Your task to perform on an android device: open app "Spotify: Music and Podcasts" Image 0: 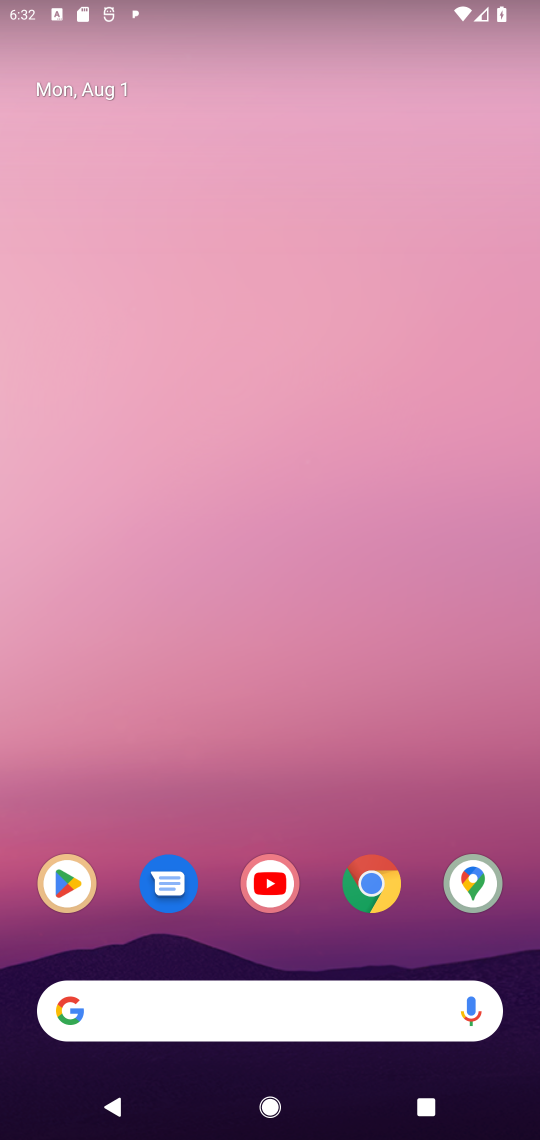
Step 0: click (61, 881)
Your task to perform on an android device: open app "Spotify: Music and Podcasts" Image 1: 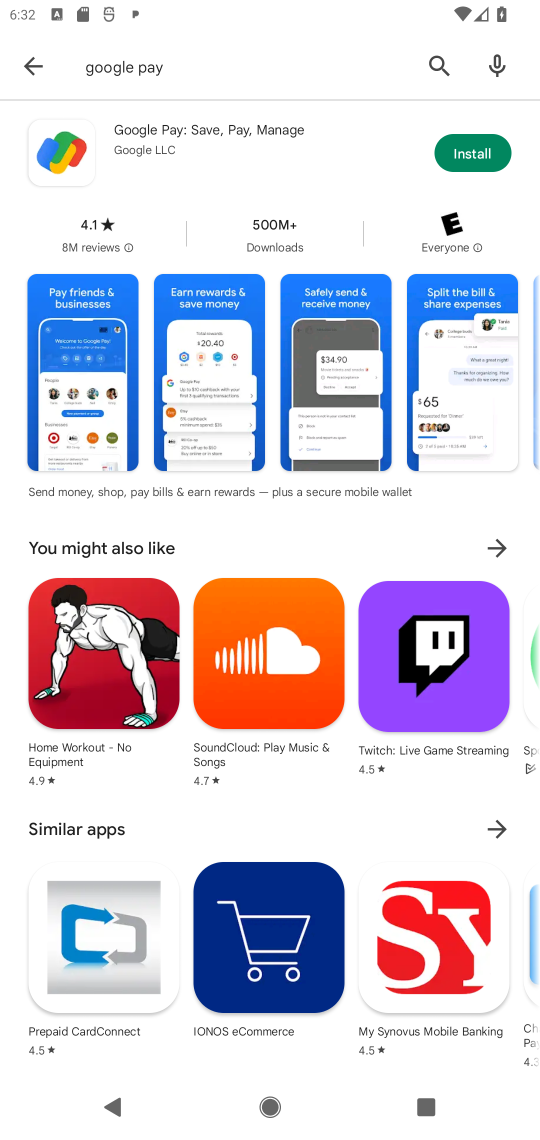
Step 1: click (31, 71)
Your task to perform on an android device: open app "Spotify: Music and Podcasts" Image 2: 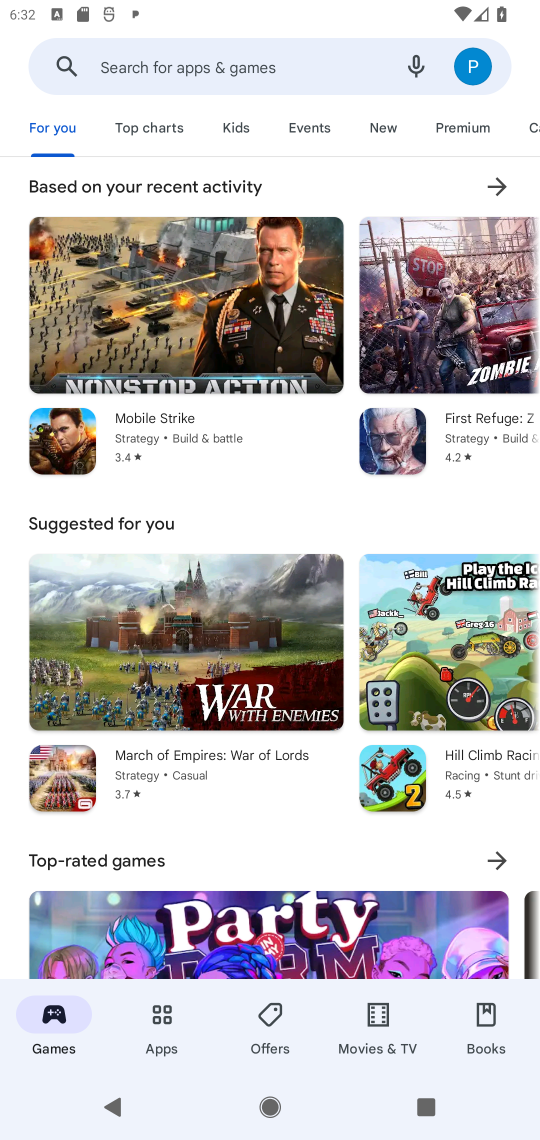
Step 2: click (111, 70)
Your task to perform on an android device: open app "Spotify: Music and Podcasts" Image 3: 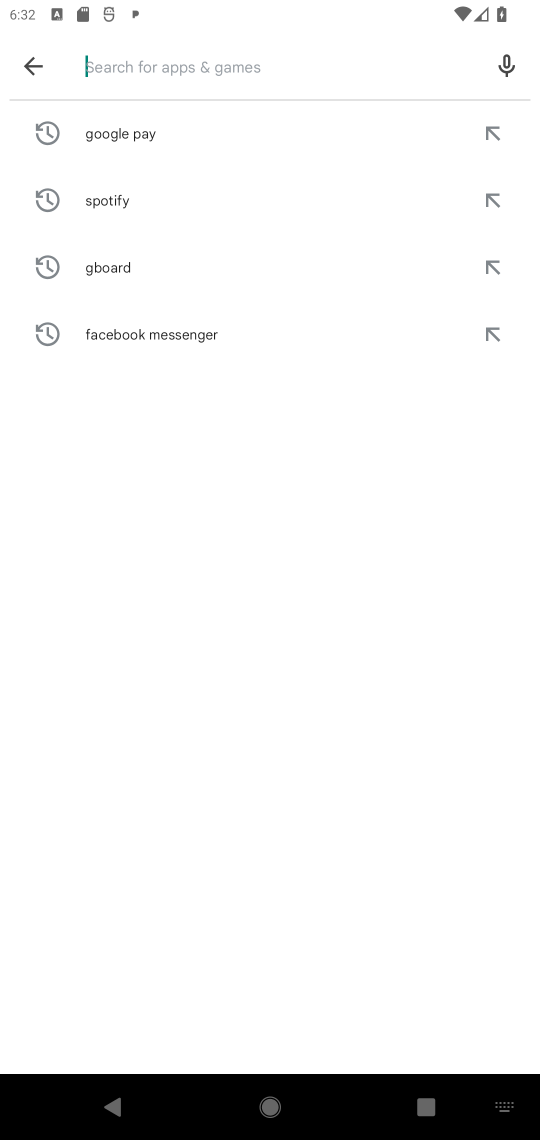
Step 3: click (102, 204)
Your task to perform on an android device: open app "Spotify: Music and Podcasts" Image 4: 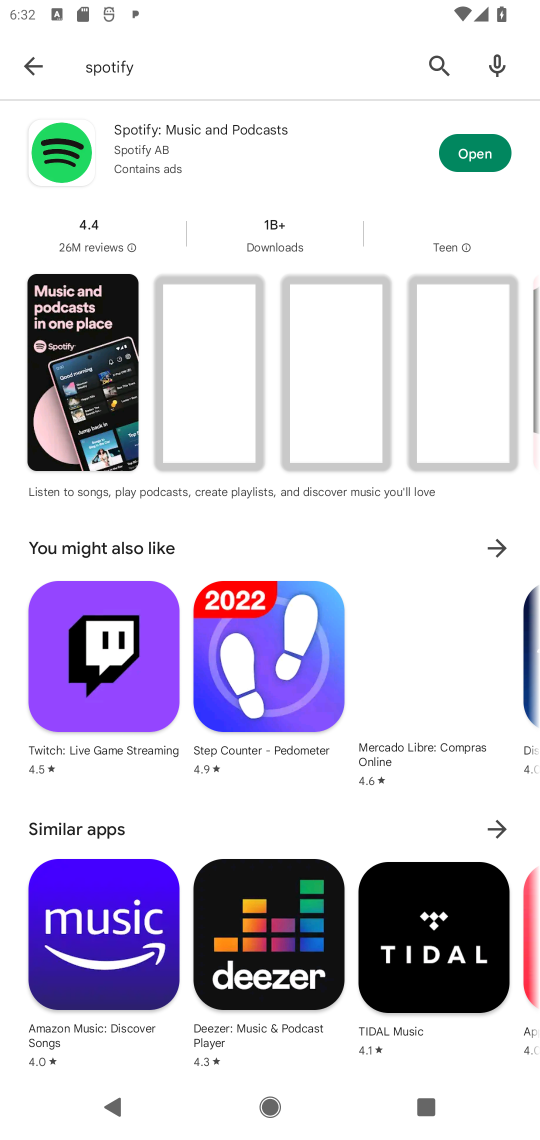
Step 4: click (467, 150)
Your task to perform on an android device: open app "Spotify: Music and Podcasts" Image 5: 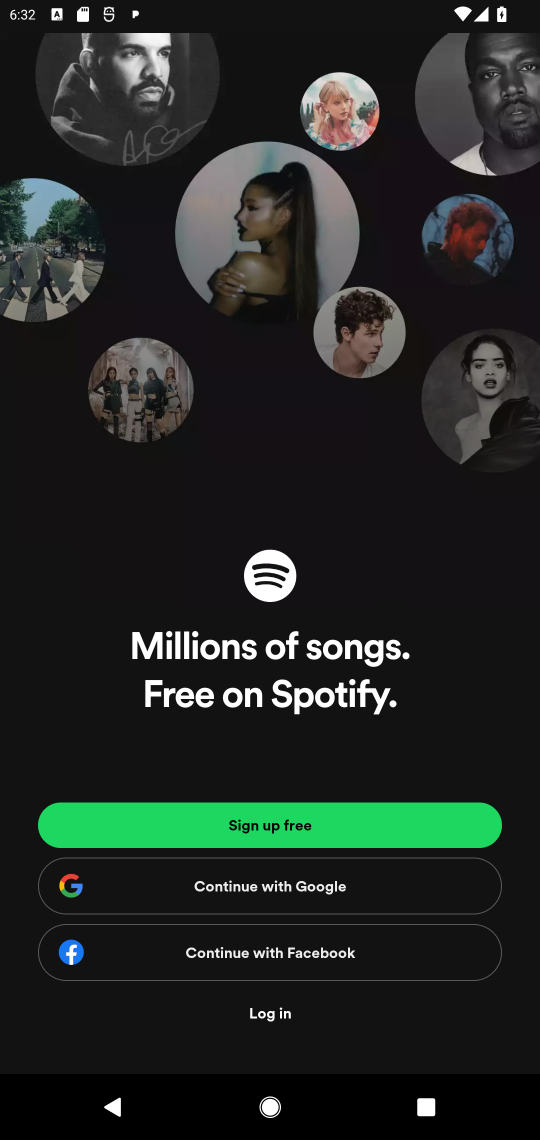
Step 5: task complete